Your task to perform on an android device: See recent photos Image 0: 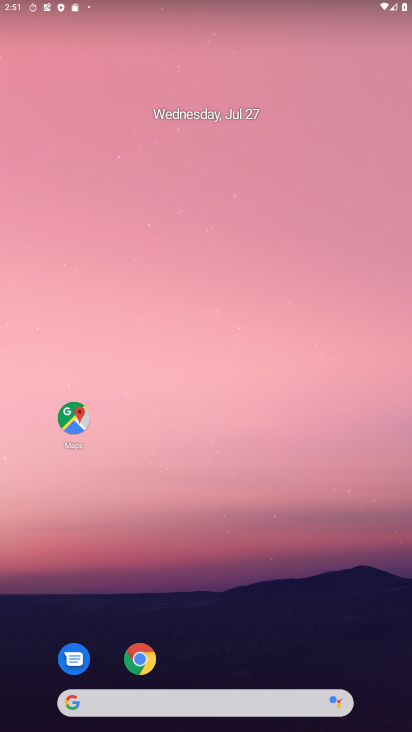
Step 0: drag from (201, 691) to (197, 244)
Your task to perform on an android device: See recent photos Image 1: 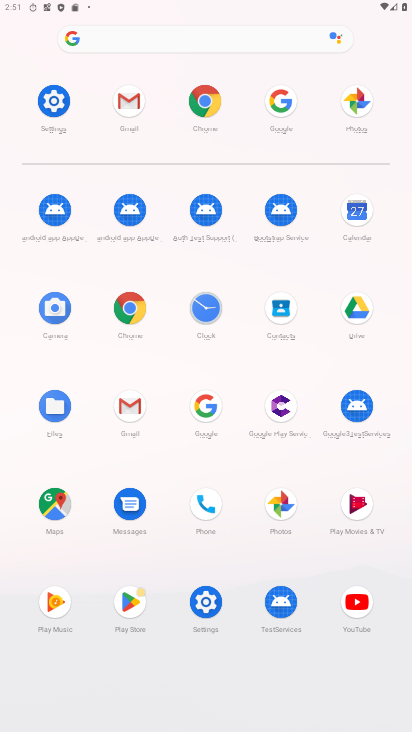
Step 1: click (278, 499)
Your task to perform on an android device: See recent photos Image 2: 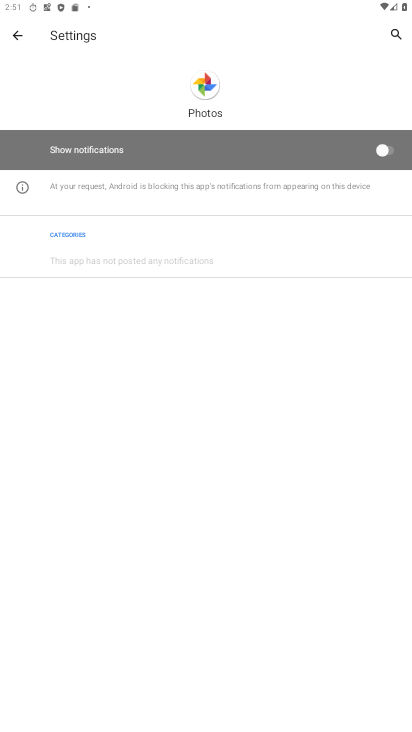
Step 2: click (18, 33)
Your task to perform on an android device: See recent photos Image 3: 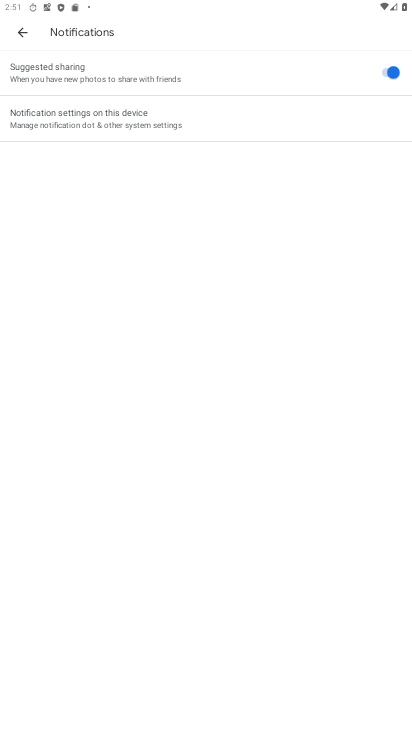
Step 3: click (17, 33)
Your task to perform on an android device: See recent photos Image 4: 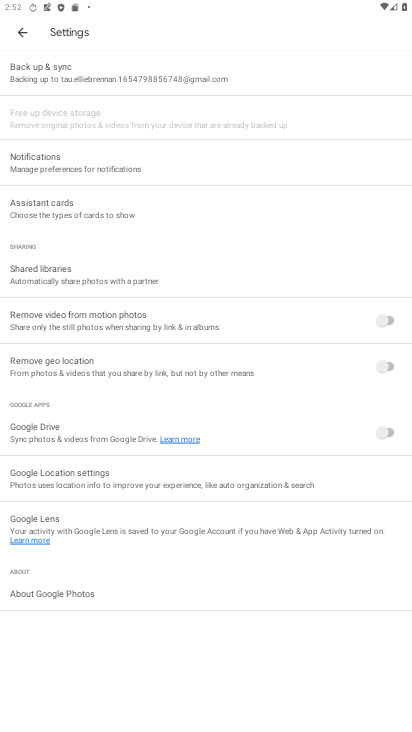
Step 4: click (16, 33)
Your task to perform on an android device: See recent photos Image 5: 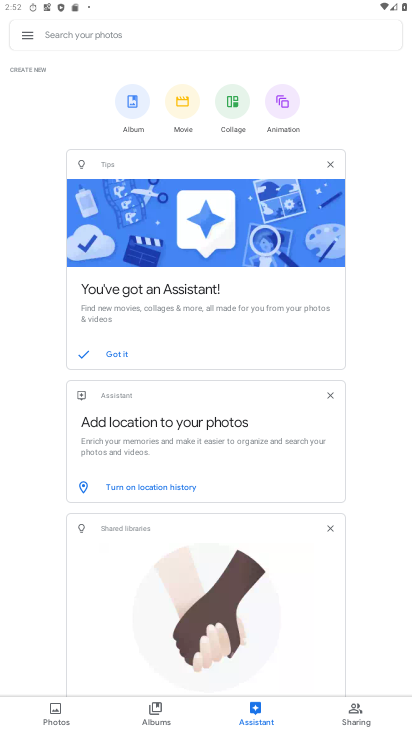
Step 5: click (59, 712)
Your task to perform on an android device: See recent photos Image 6: 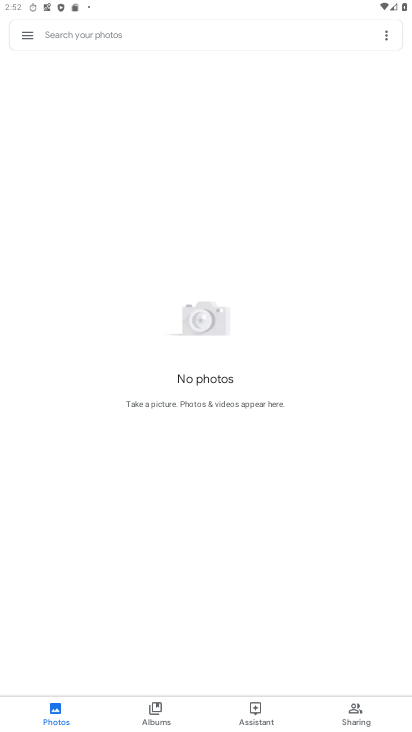
Step 6: click (59, 712)
Your task to perform on an android device: See recent photos Image 7: 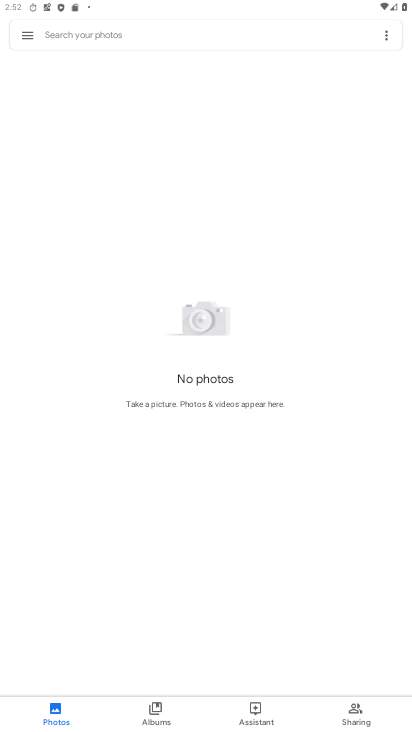
Step 7: task complete